Your task to perform on an android device: open app "Firefox Browser" Image 0: 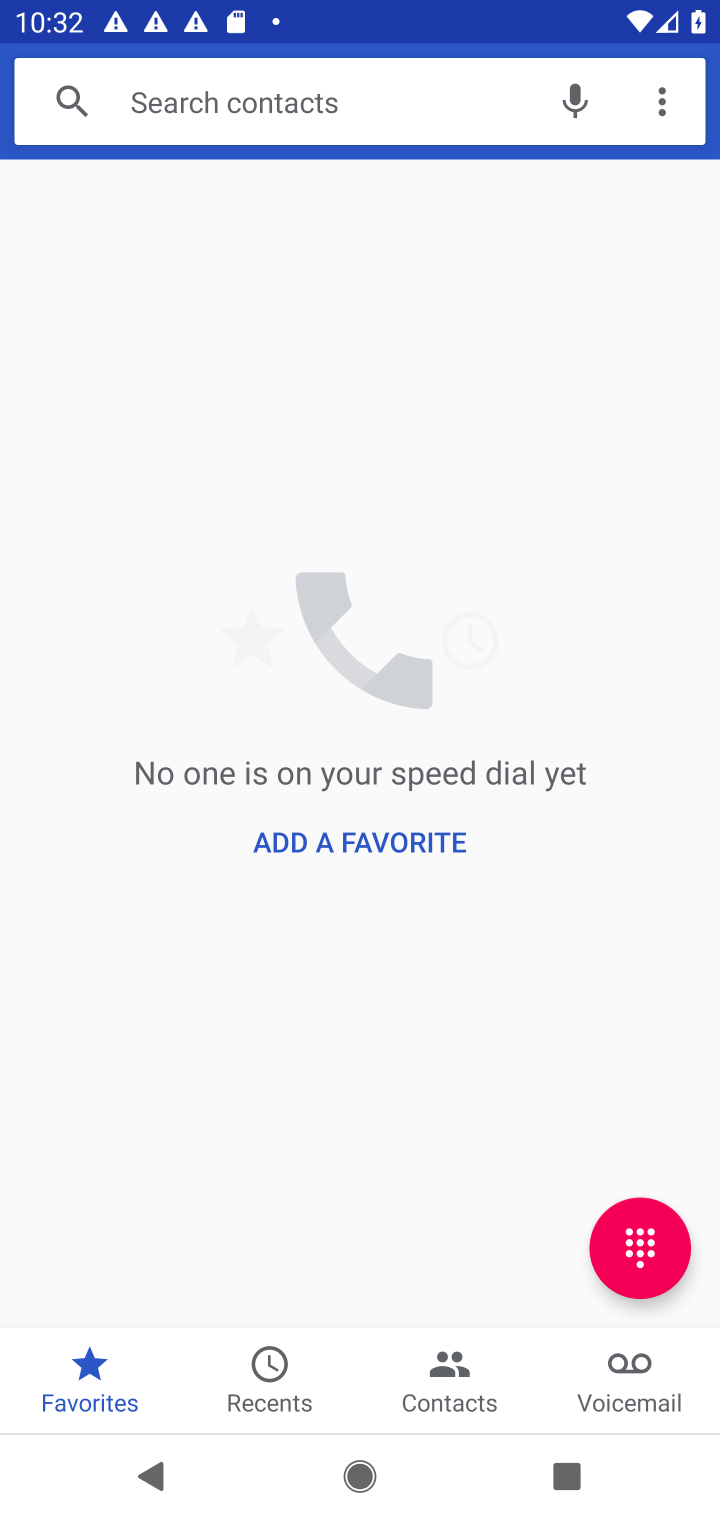
Step 0: press home button
Your task to perform on an android device: open app "Firefox Browser" Image 1: 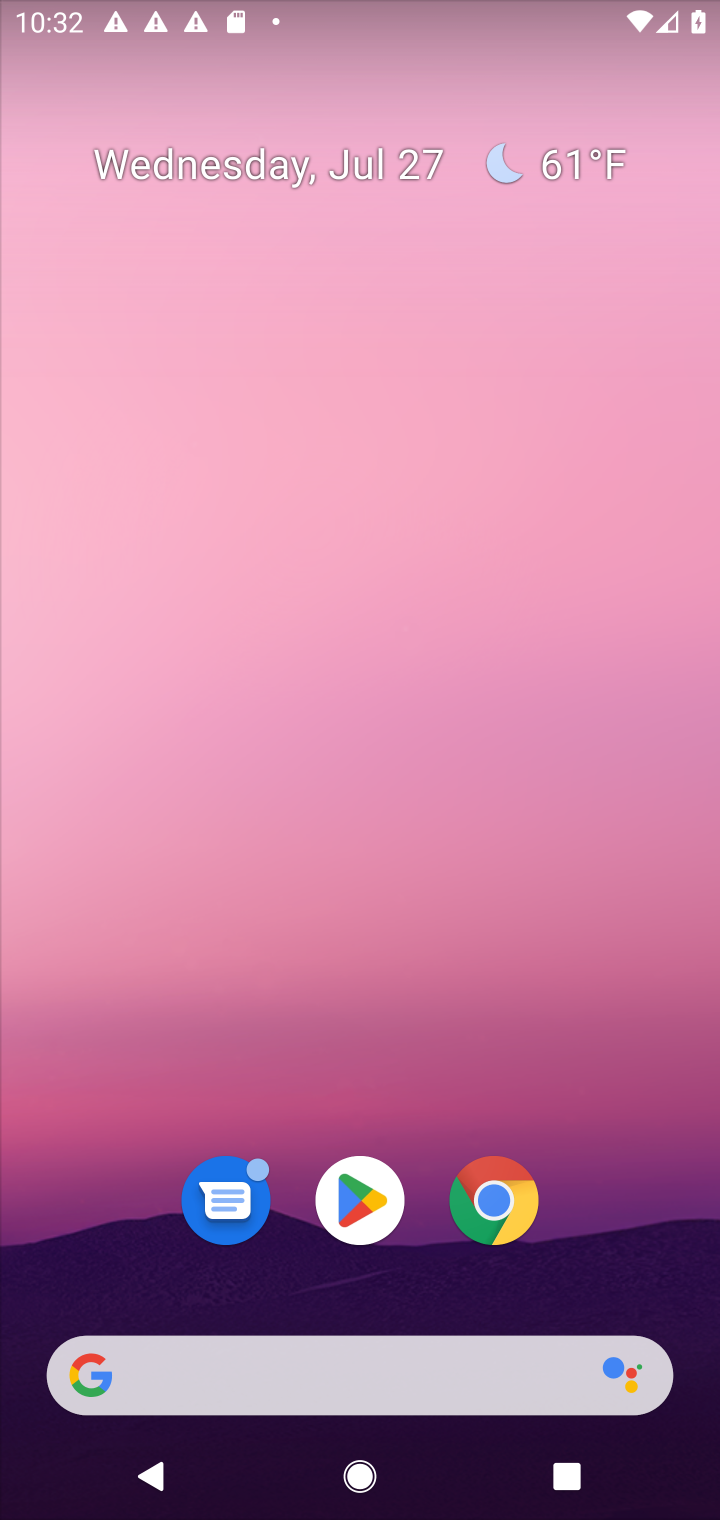
Step 1: click (370, 1210)
Your task to perform on an android device: open app "Firefox Browser" Image 2: 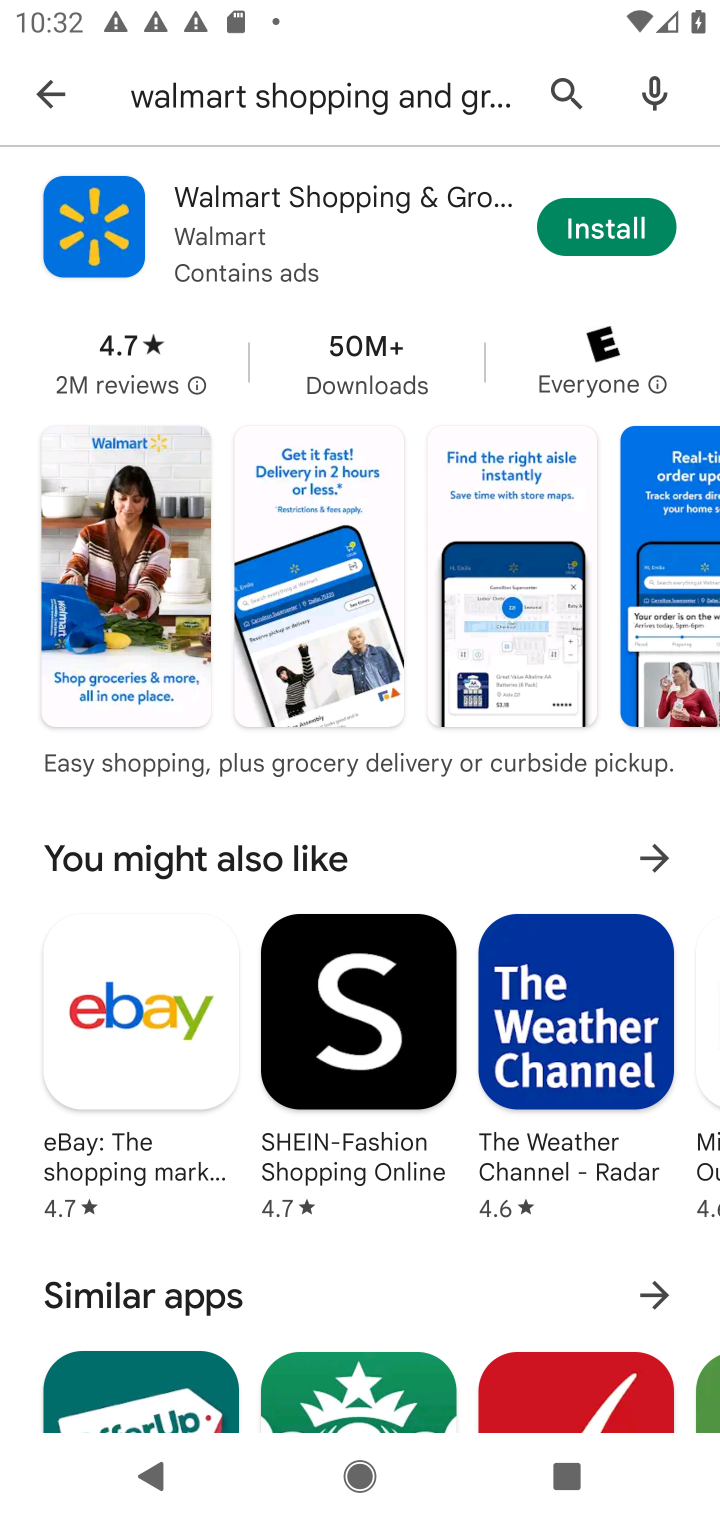
Step 2: click (50, 92)
Your task to perform on an android device: open app "Firefox Browser" Image 3: 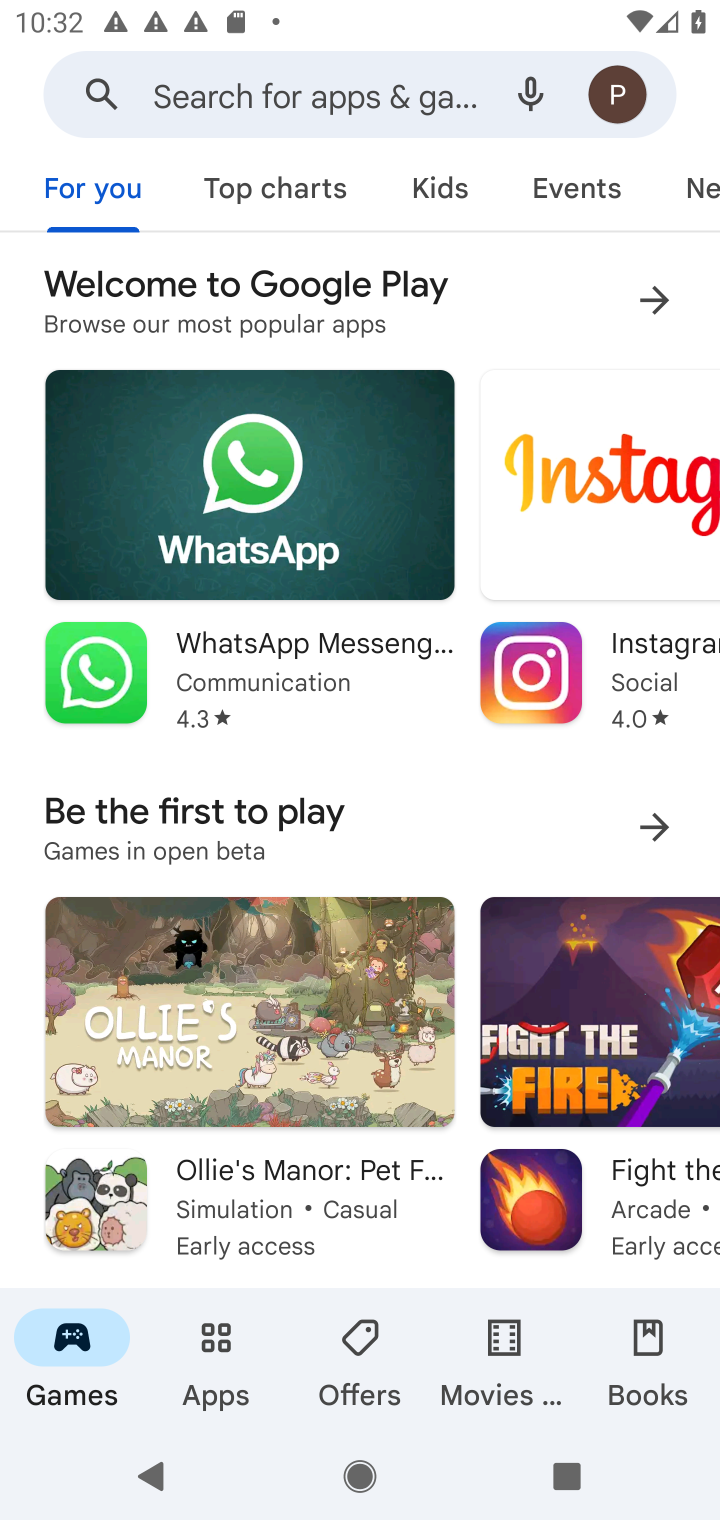
Step 3: click (319, 81)
Your task to perform on an android device: open app "Firefox Browser" Image 4: 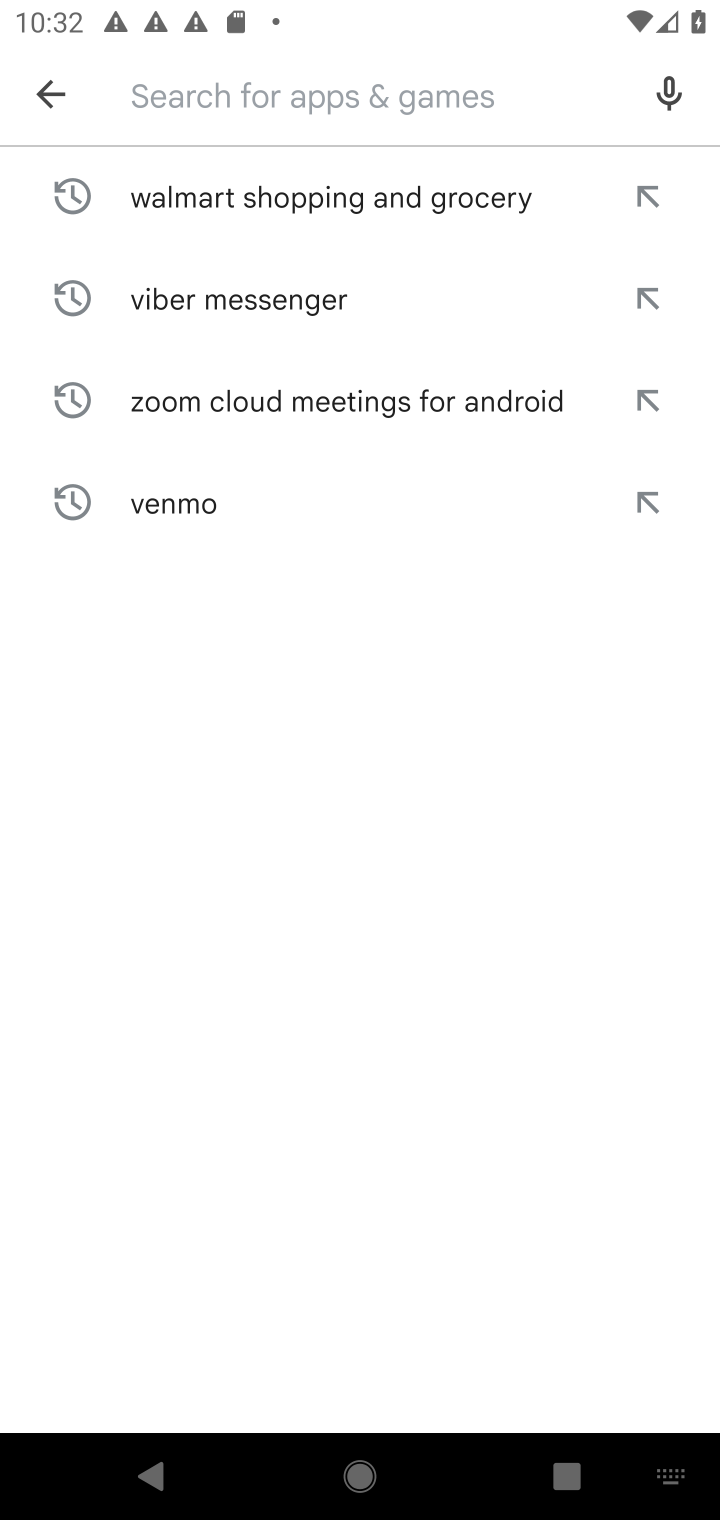
Step 4: click (319, 81)
Your task to perform on an android device: open app "Firefox Browser" Image 5: 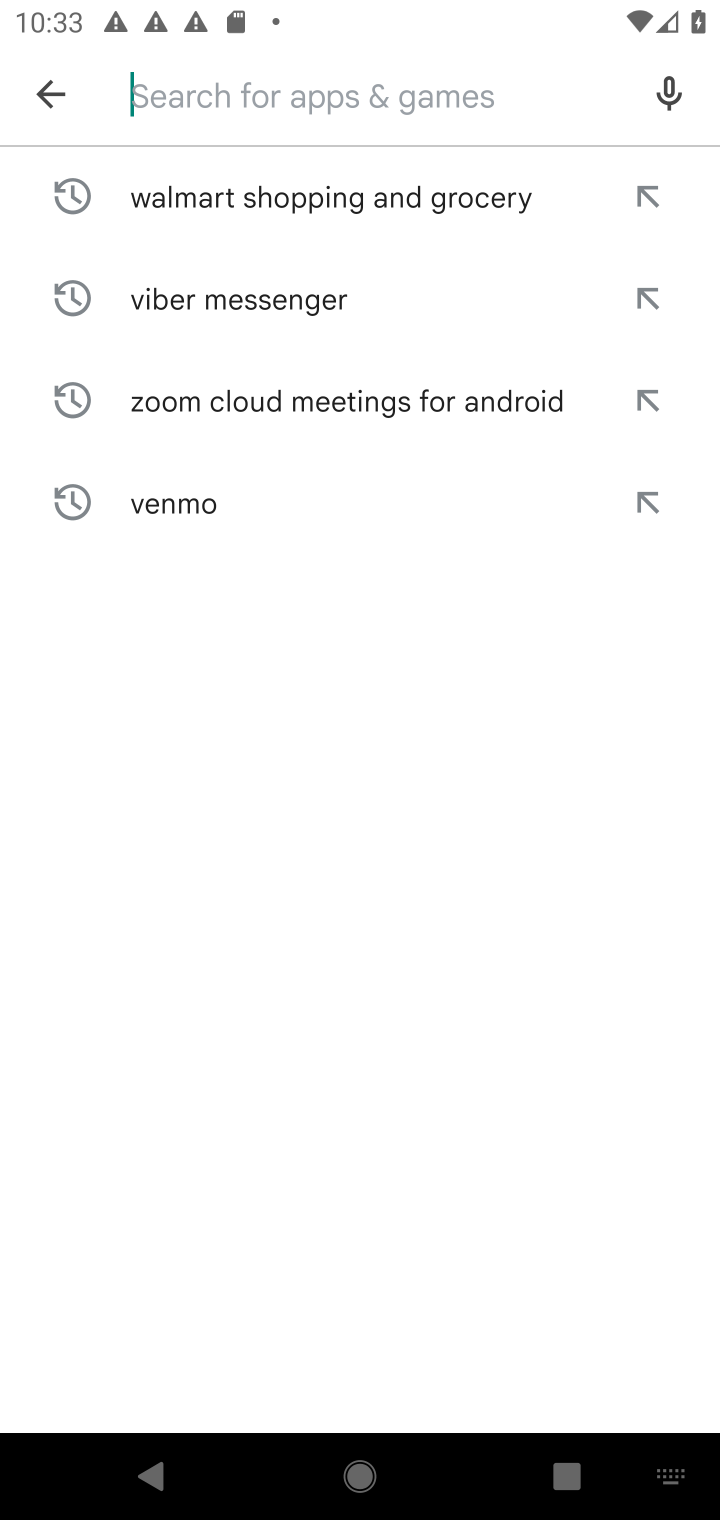
Step 5: type "firefox browser"
Your task to perform on an android device: open app "Firefox Browser" Image 6: 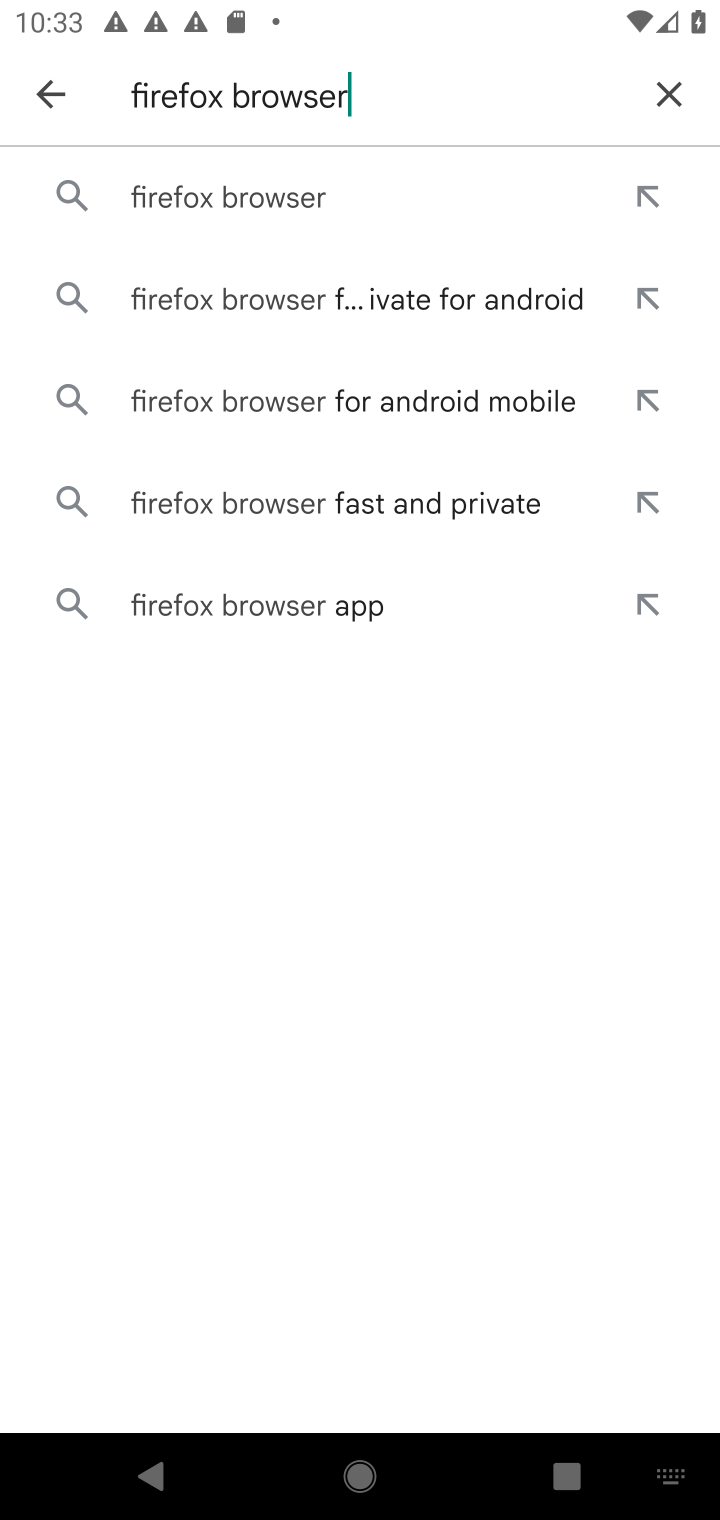
Step 6: click (256, 185)
Your task to perform on an android device: open app "Firefox Browser" Image 7: 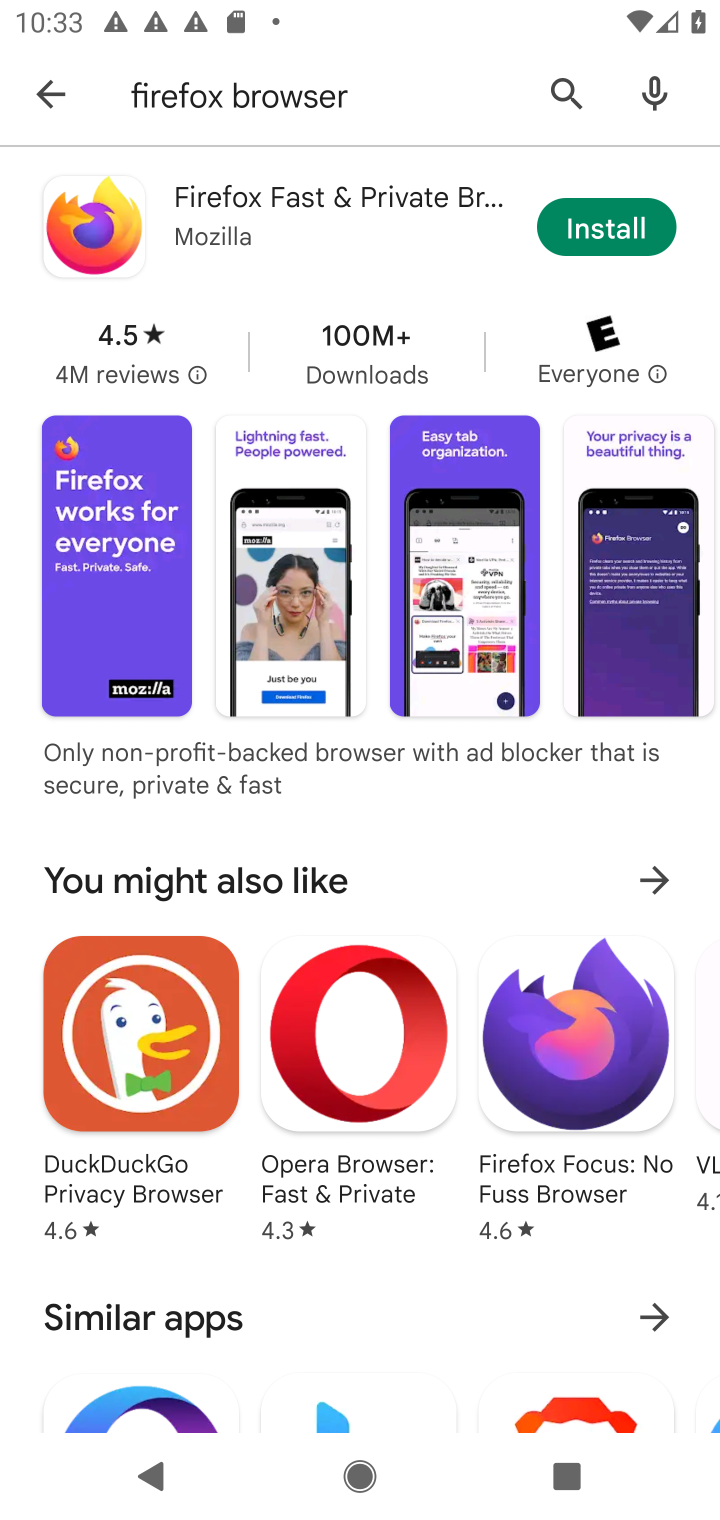
Step 7: task complete